Your task to perform on an android device: Open display settings Image 0: 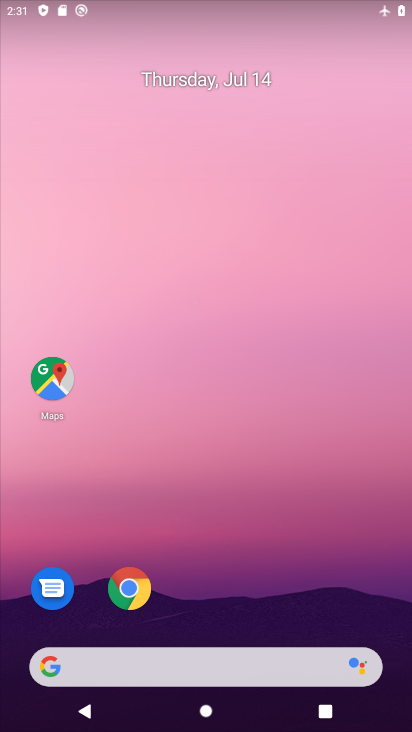
Step 0: drag from (212, 301) to (218, 15)
Your task to perform on an android device: Open display settings Image 1: 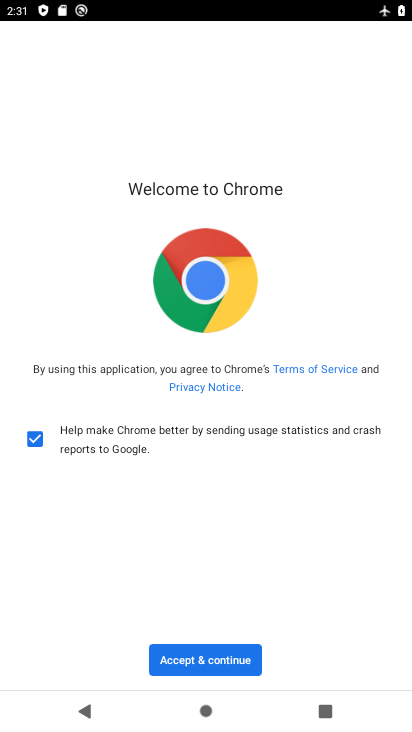
Step 1: press home button
Your task to perform on an android device: Open display settings Image 2: 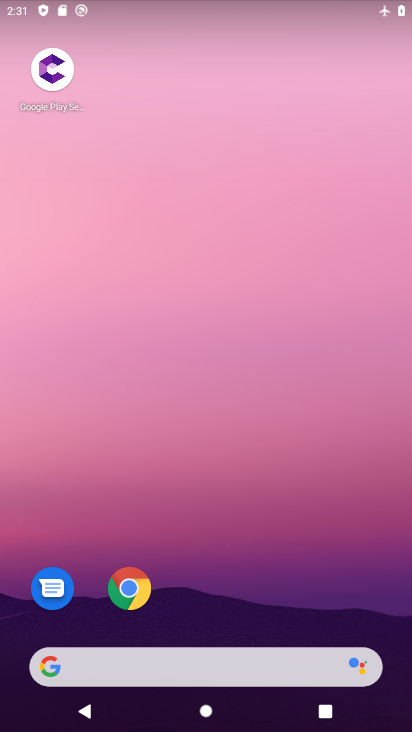
Step 2: drag from (210, 674) to (173, 215)
Your task to perform on an android device: Open display settings Image 3: 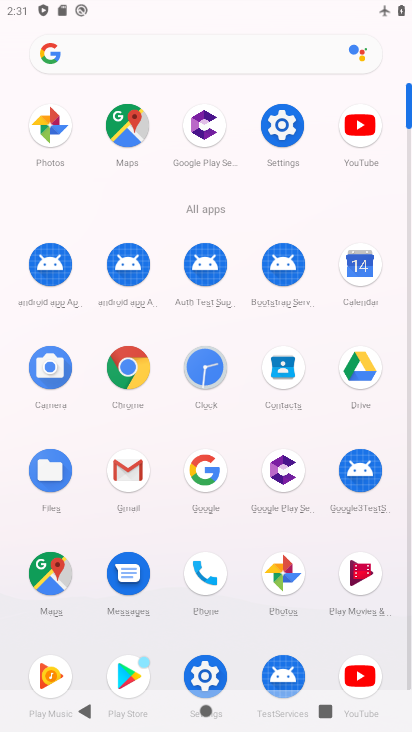
Step 3: click (291, 138)
Your task to perform on an android device: Open display settings Image 4: 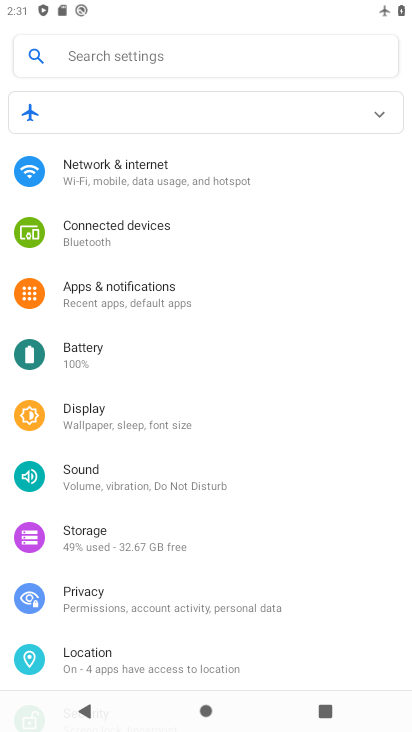
Step 4: click (87, 415)
Your task to perform on an android device: Open display settings Image 5: 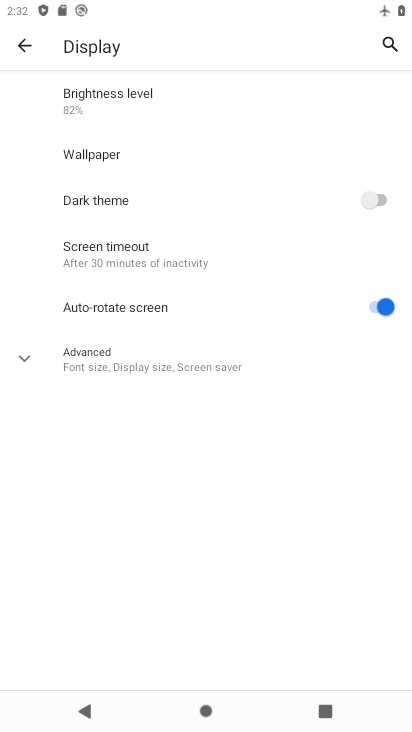
Step 5: task complete